Your task to perform on an android device: Open calendar and show me the second week of next month Image 0: 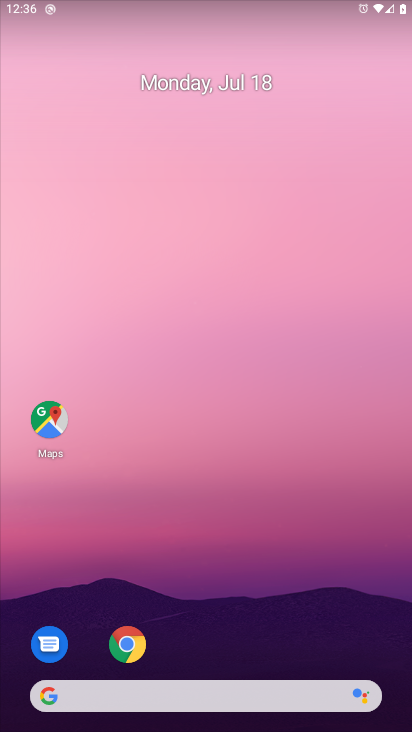
Step 0: press home button
Your task to perform on an android device: Open calendar and show me the second week of next month Image 1: 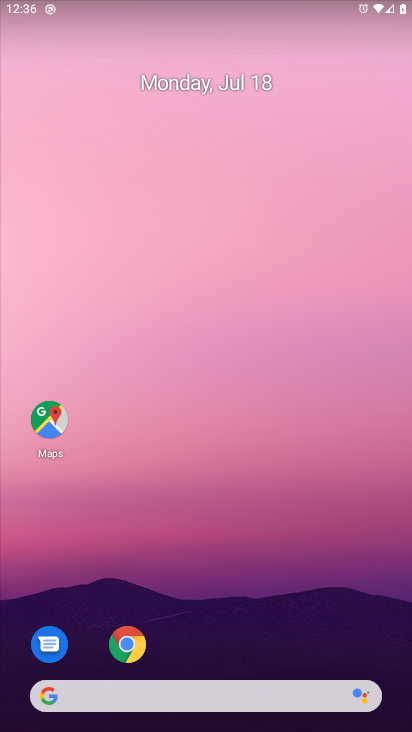
Step 1: drag from (310, 544) to (340, 56)
Your task to perform on an android device: Open calendar and show me the second week of next month Image 2: 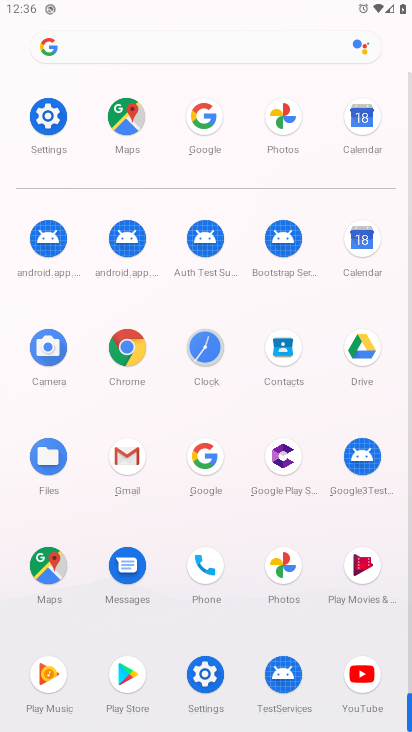
Step 2: click (348, 231)
Your task to perform on an android device: Open calendar and show me the second week of next month Image 3: 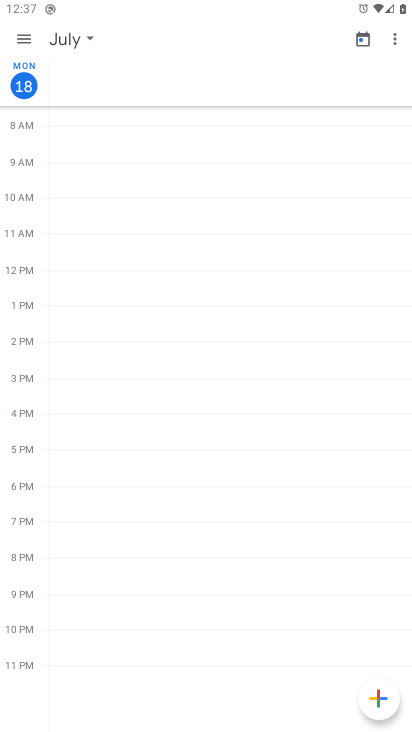
Step 3: click (28, 42)
Your task to perform on an android device: Open calendar and show me the second week of next month Image 4: 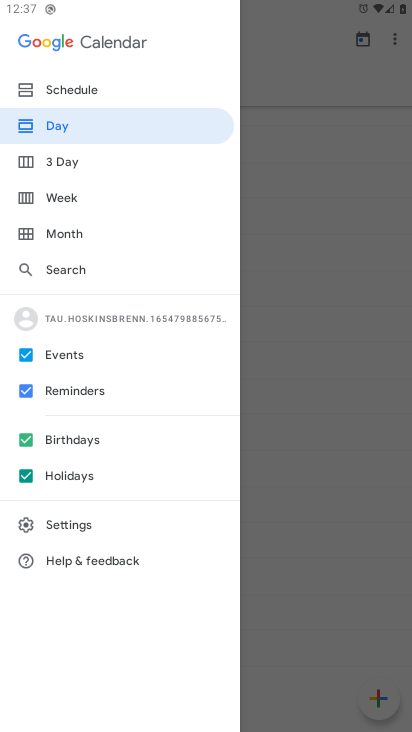
Step 4: click (65, 195)
Your task to perform on an android device: Open calendar and show me the second week of next month Image 5: 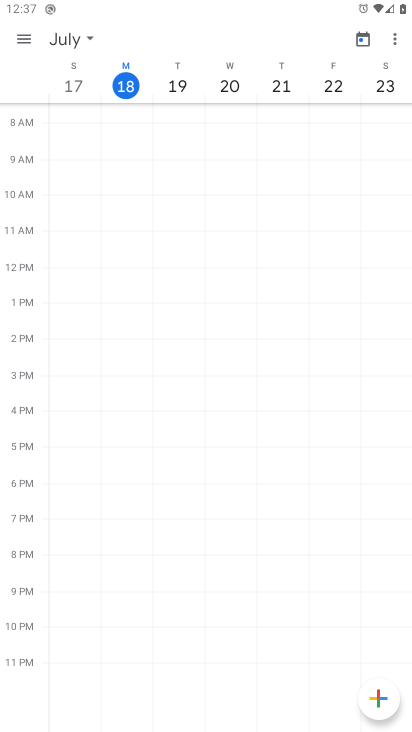
Step 5: task complete